Your task to perform on an android device: allow cookies in the chrome app Image 0: 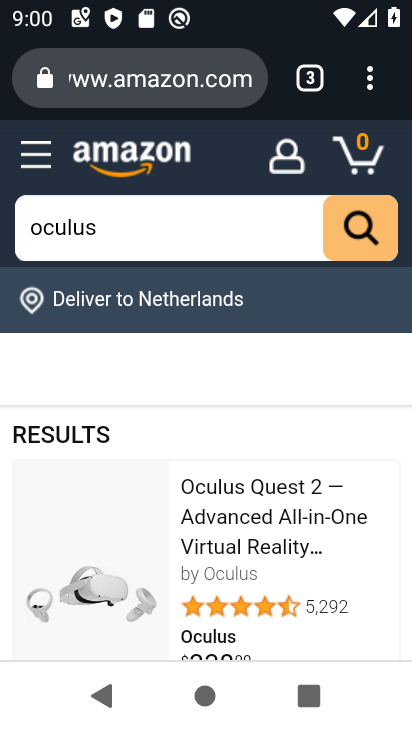
Step 0: press home button
Your task to perform on an android device: allow cookies in the chrome app Image 1: 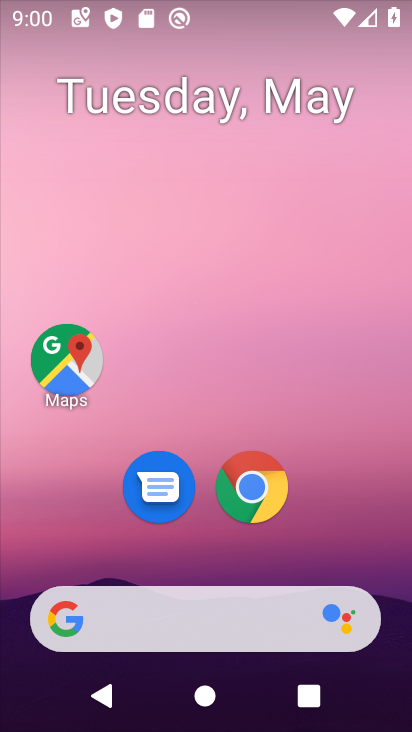
Step 1: drag from (375, 528) to (360, 205)
Your task to perform on an android device: allow cookies in the chrome app Image 2: 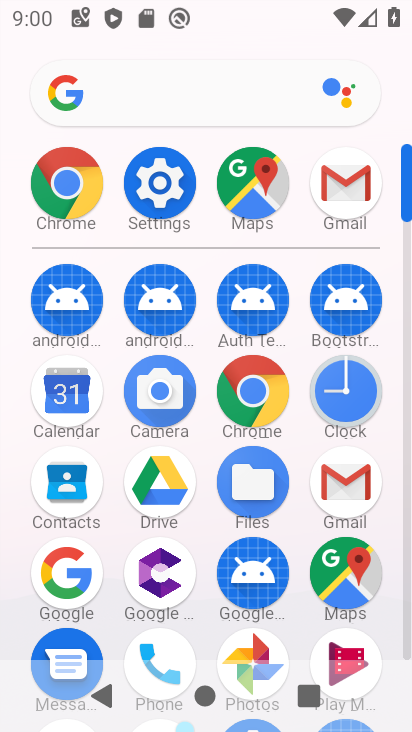
Step 2: click (269, 404)
Your task to perform on an android device: allow cookies in the chrome app Image 3: 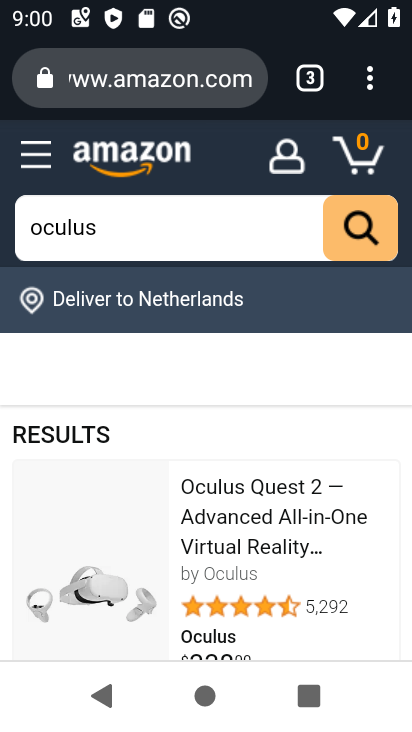
Step 3: click (370, 88)
Your task to perform on an android device: allow cookies in the chrome app Image 4: 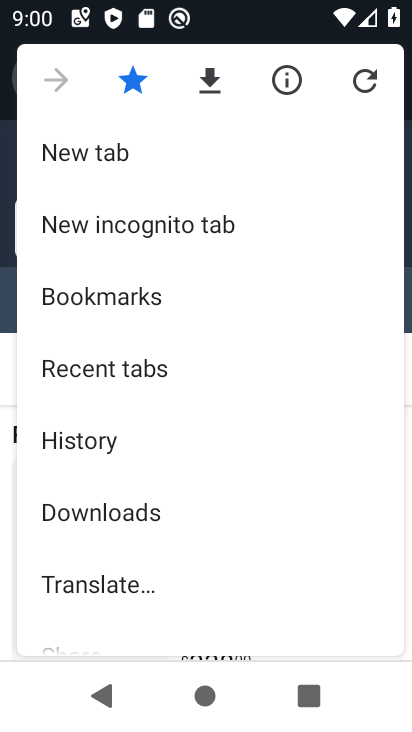
Step 4: drag from (295, 510) to (296, 419)
Your task to perform on an android device: allow cookies in the chrome app Image 5: 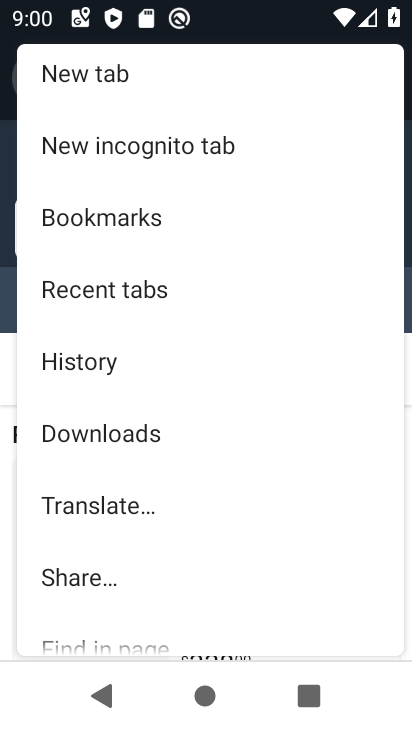
Step 5: drag from (317, 541) to (312, 443)
Your task to perform on an android device: allow cookies in the chrome app Image 6: 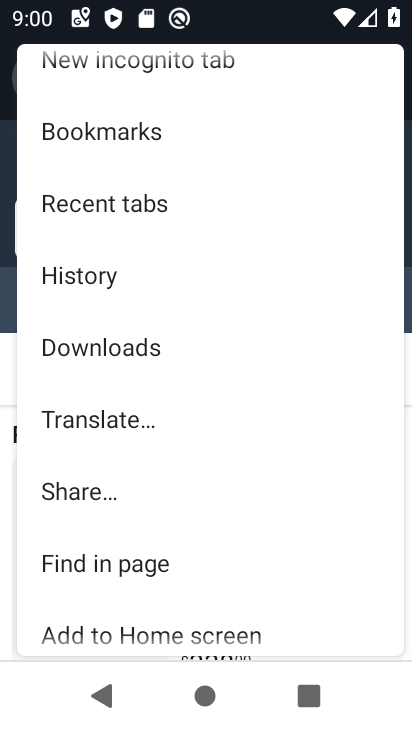
Step 6: drag from (338, 570) to (332, 450)
Your task to perform on an android device: allow cookies in the chrome app Image 7: 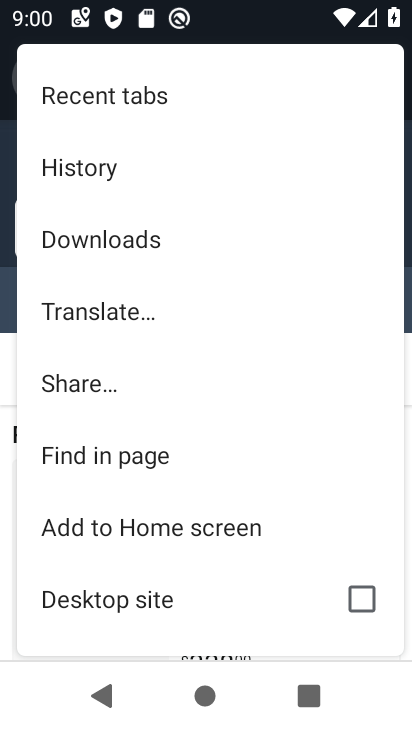
Step 7: drag from (312, 574) to (313, 450)
Your task to perform on an android device: allow cookies in the chrome app Image 8: 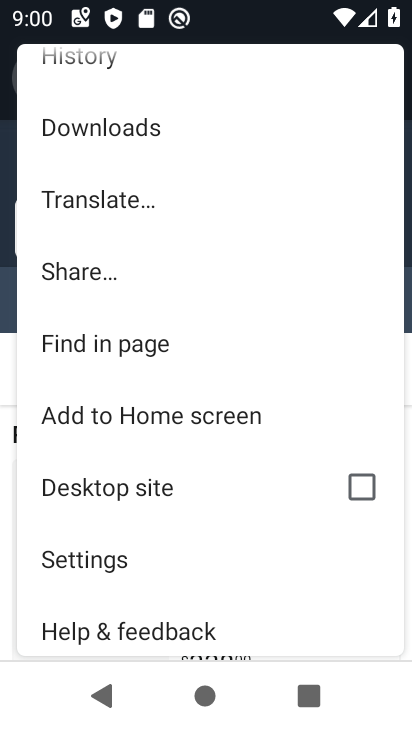
Step 8: click (159, 566)
Your task to perform on an android device: allow cookies in the chrome app Image 9: 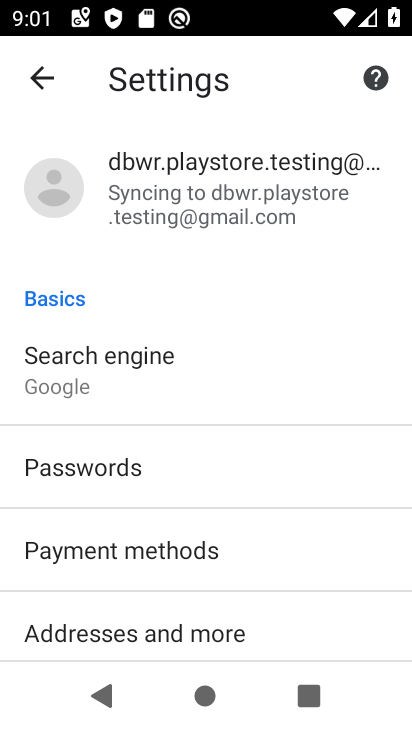
Step 9: drag from (322, 544) to (321, 490)
Your task to perform on an android device: allow cookies in the chrome app Image 10: 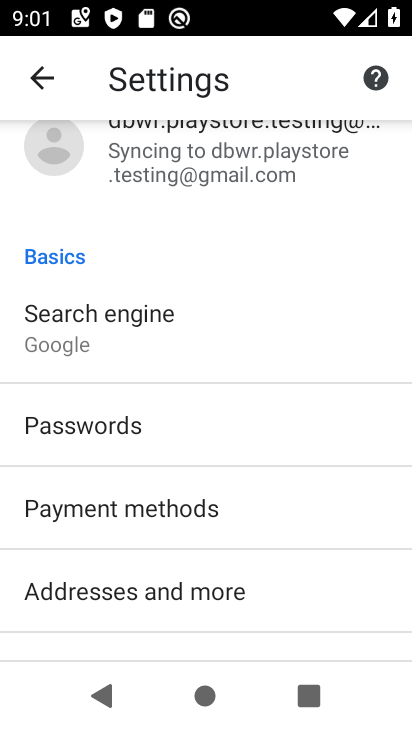
Step 10: drag from (332, 570) to (334, 509)
Your task to perform on an android device: allow cookies in the chrome app Image 11: 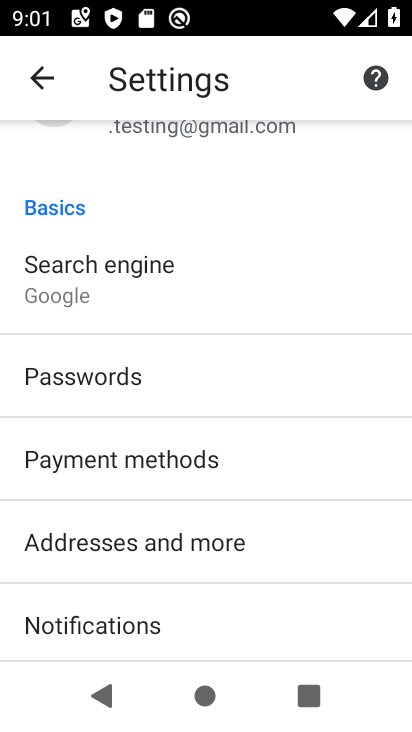
Step 11: drag from (362, 569) to (357, 458)
Your task to perform on an android device: allow cookies in the chrome app Image 12: 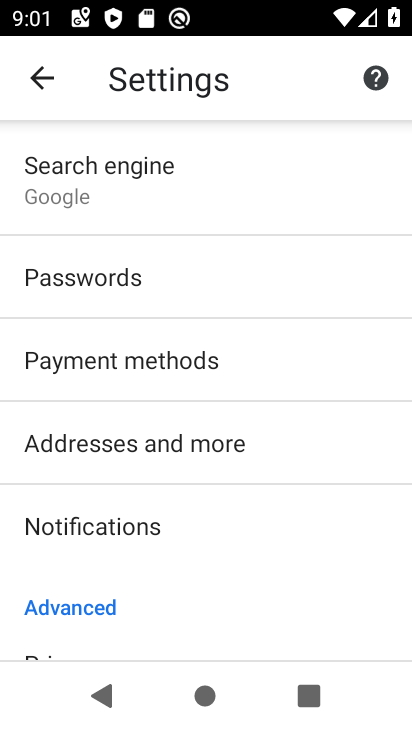
Step 12: drag from (350, 557) to (345, 442)
Your task to perform on an android device: allow cookies in the chrome app Image 13: 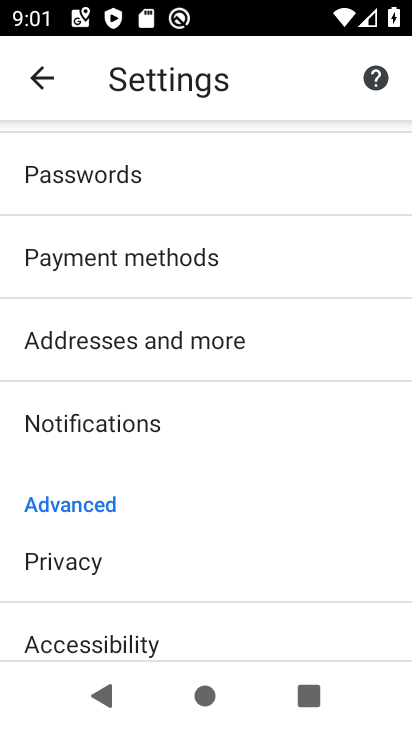
Step 13: drag from (345, 569) to (335, 481)
Your task to perform on an android device: allow cookies in the chrome app Image 14: 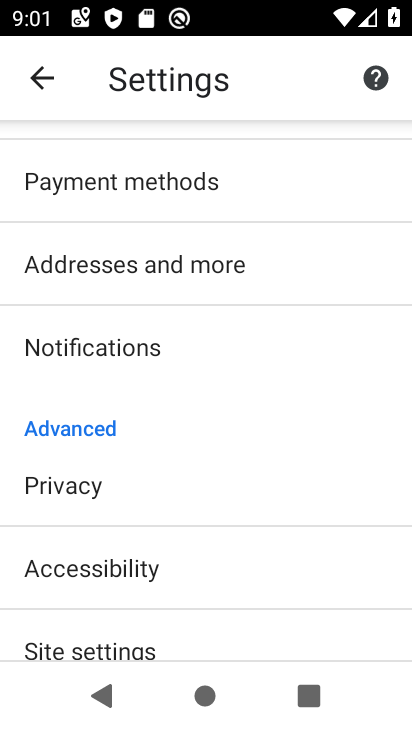
Step 14: drag from (337, 549) to (340, 479)
Your task to perform on an android device: allow cookies in the chrome app Image 15: 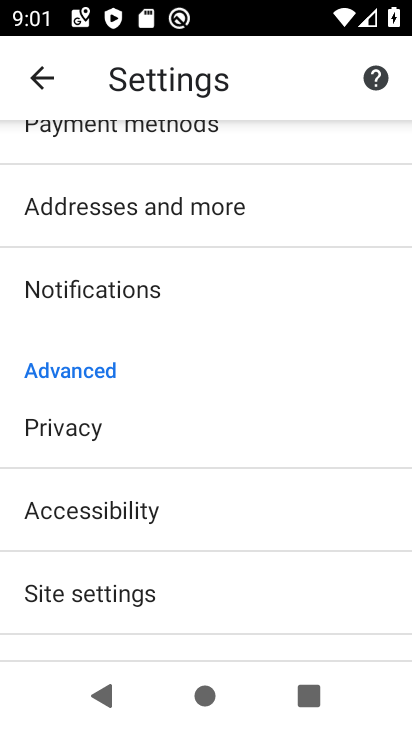
Step 15: drag from (347, 549) to (350, 459)
Your task to perform on an android device: allow cookies in the chrome app Image 16: 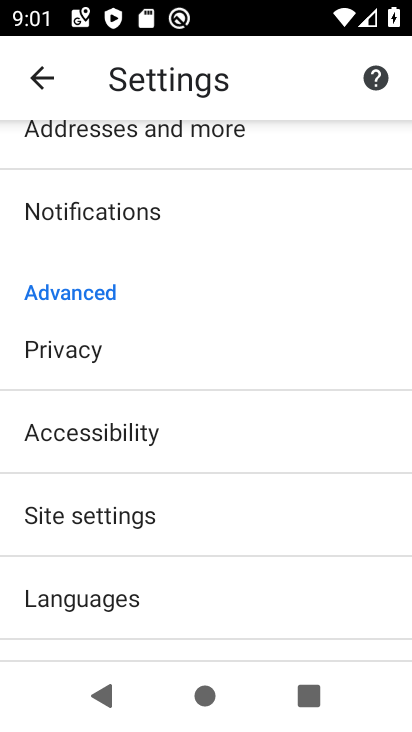
Step 16: click (316, 511)
Your task to perform on an android device: allow cookies in the chrome app Image 17: 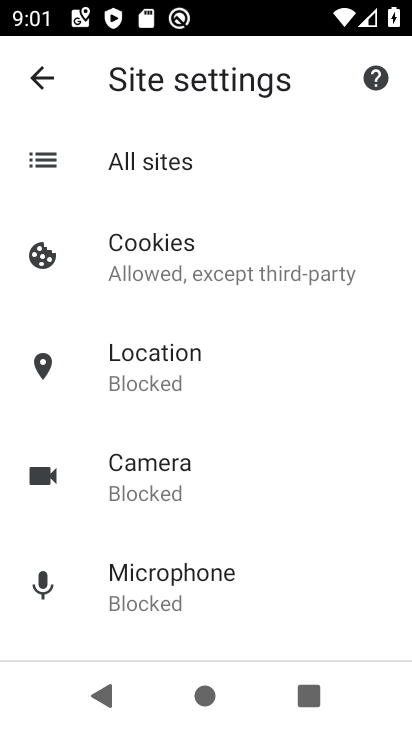
Step 17: click (226, 258)
Your task to perform on an android device: allow cookies in the chrome app Image 18: 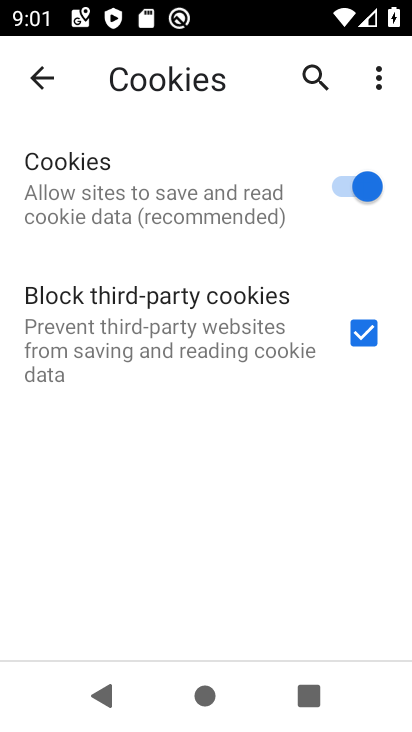
Step 18: task complete